Your task to perform on an android device: Go to location settings Image 0: 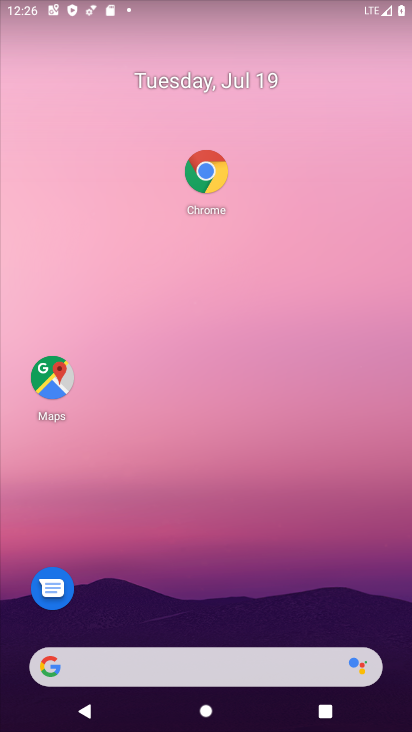
Step 0: drag from (250, 329) to (182, 1)
Your task to perform on an android device: Go to location settings Image 1: 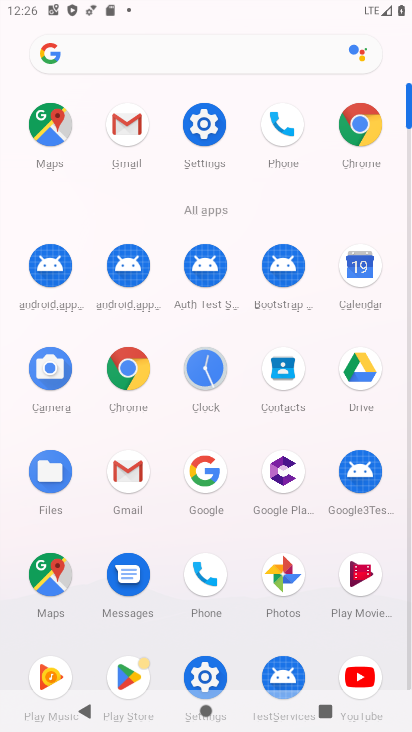
Step 1: click (193, 120)
Your task to perform on an android device: Go to location settings Image 2: 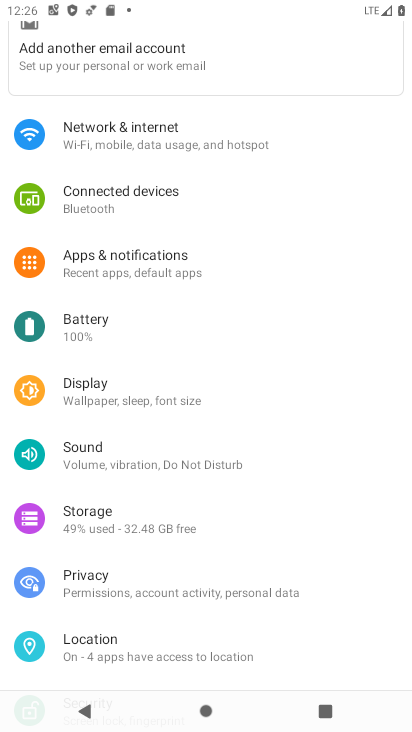
Step 2: click (123, 631)
Your task to perform on an android device: Go to location settings Image 3: 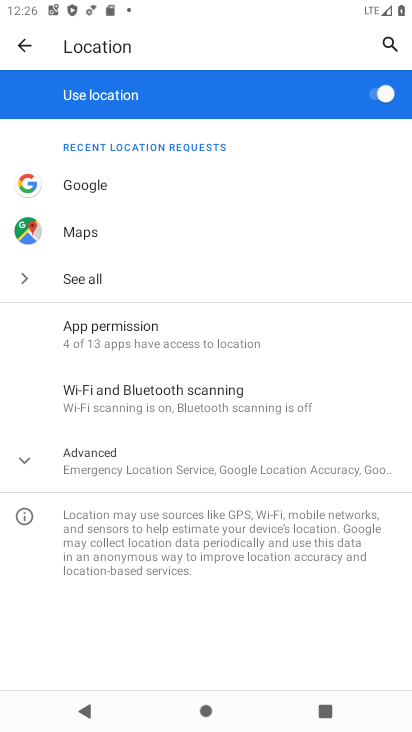
Step 3: task complete